Your task to perform on an android device: Open calendar and show me the fourth week of next month Image 0: 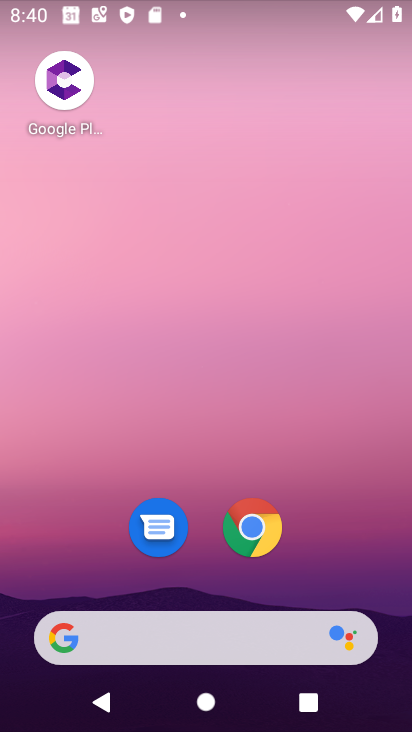
Step 0: drag from (206, 565) to (230, 73)
Your task to perform on an android device: Open calendar and show me the fourth week of next month Image 1: 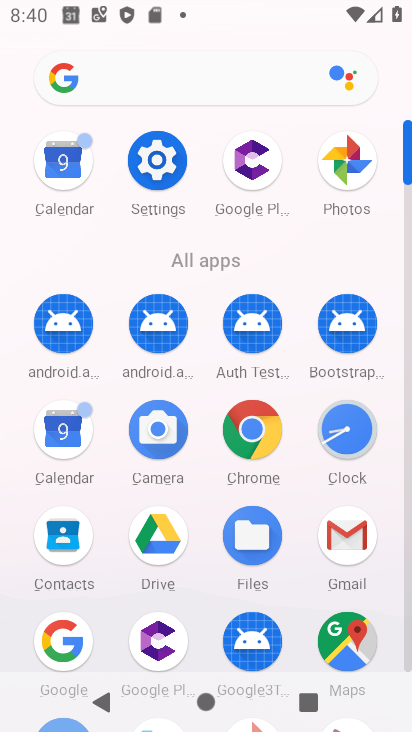
Step 1: click (66, 432)
Your task to perform on an android device: Open calendar and show me the fourth week of next month Image 2: 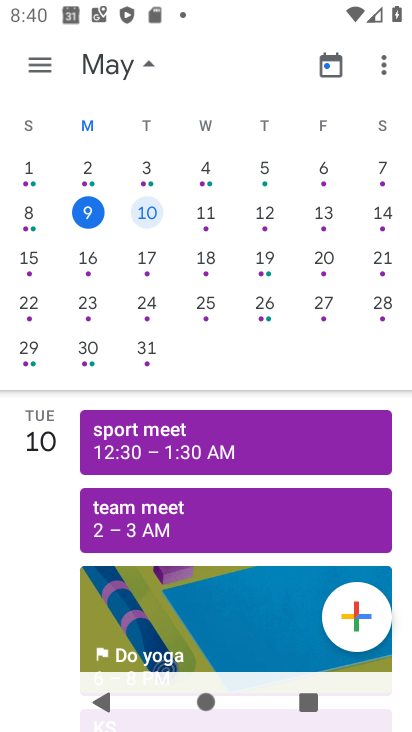
Step 2: drag from (376, 363) to (10, 343)
Your task to perform on an android device: Open calendar and show me the fourth week of next month Image 3: 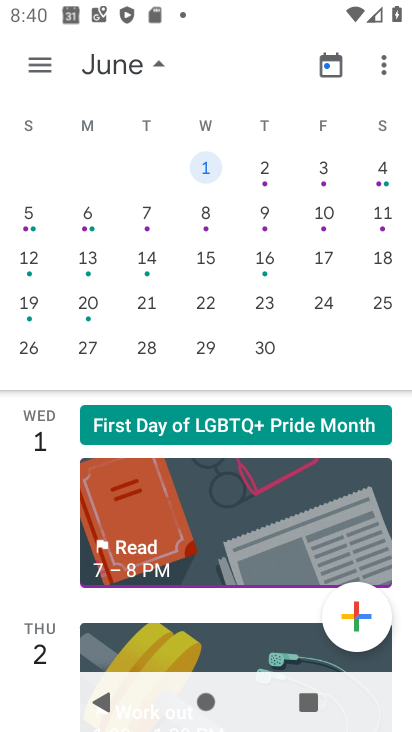
Step 3: click (209, 294)
Your task to perform on an android device: Open calendar and show me the fourth week of next month Image 4: 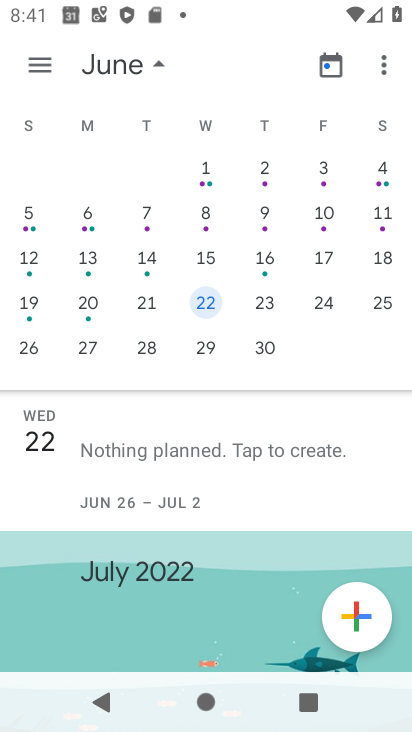
Step 4: task complete